Your task to perform on an android device: Open eBay Image 0: 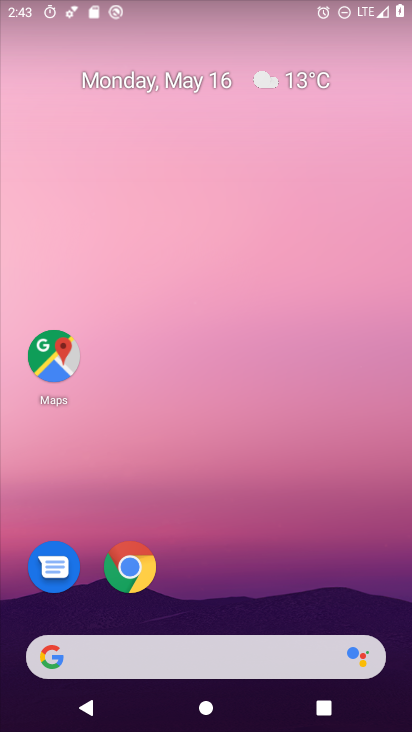
Step 0: click (123, 555)
Your task to perform on an android device: Open eBay Image 1: 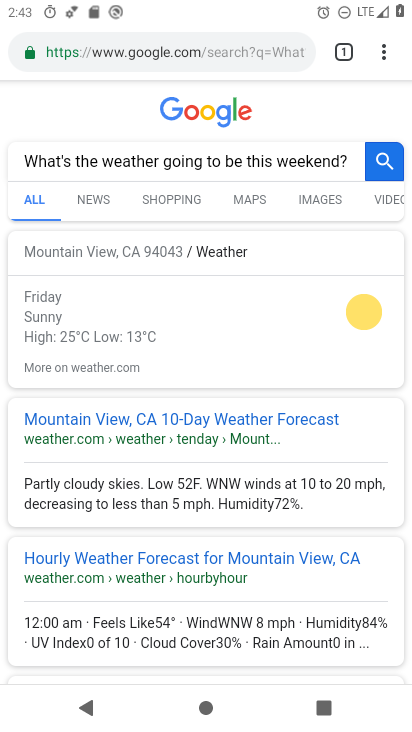
Step 1: click (104, 48)
Your task to perform on an android device: Open eBay Image 2: 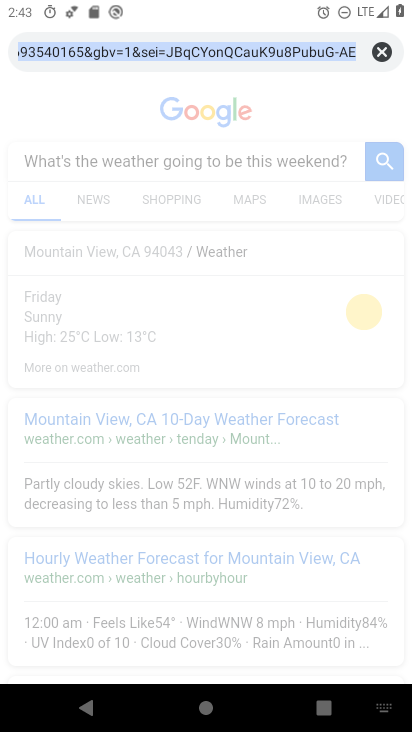
Step 2: click (377, 50)
Your task to perform on an android device: Open eBay Image 3: 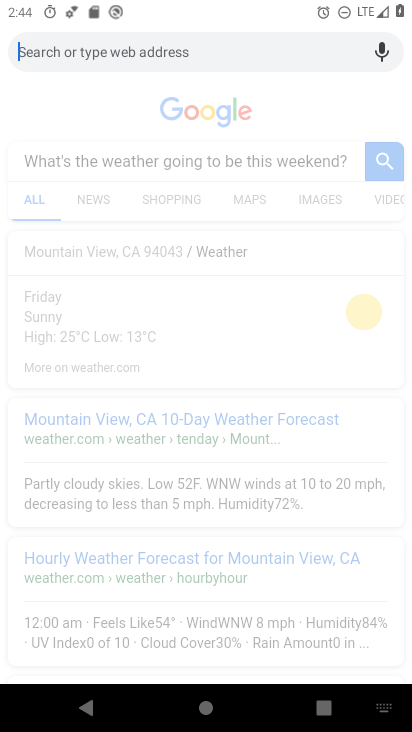
Step 3: click (186, 58)
Your task to perform on an android device: Open eBay Image 4: 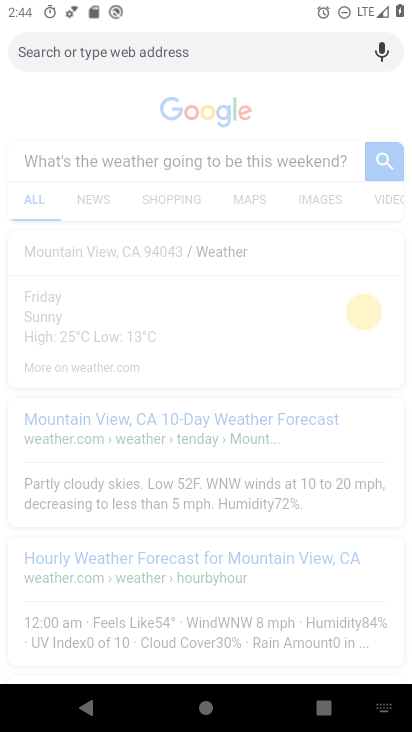
Step 4: click (301, 684)
Your task to perform on an android device: Open eBay Image 5: 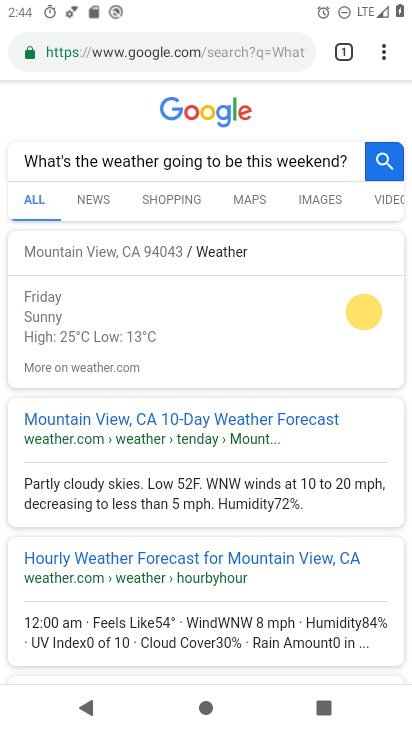
Step 5: type " eBay"
Your task to perform on an android device: Open eBay Image 6: 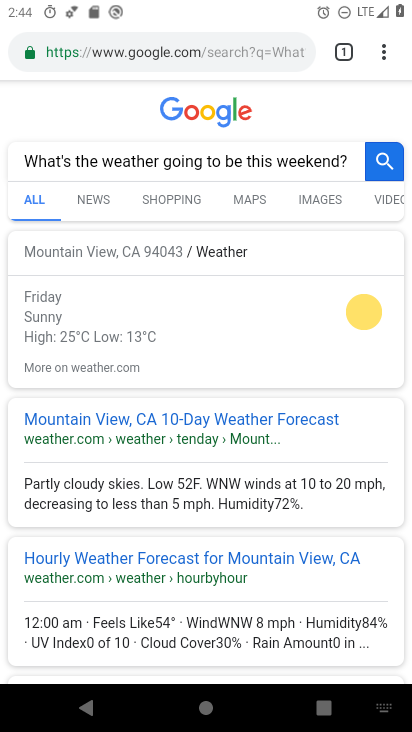
Step 6: click (148, 54)
Your task to perform on an android device: Open eBay Image 7: 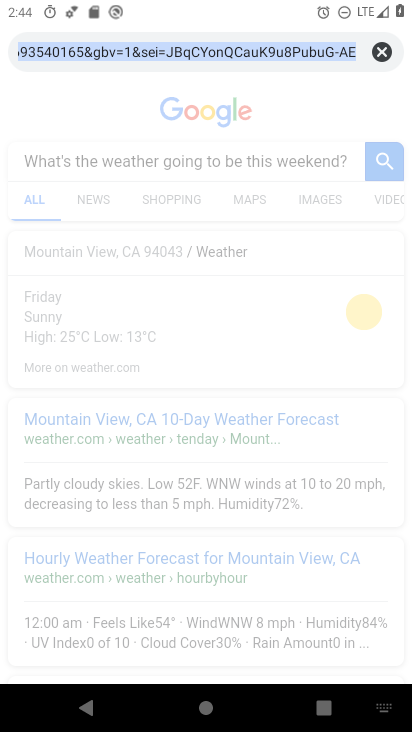
Step 7: click (376, 49)
Your task to perform on an android device: Open eBay Image 8: 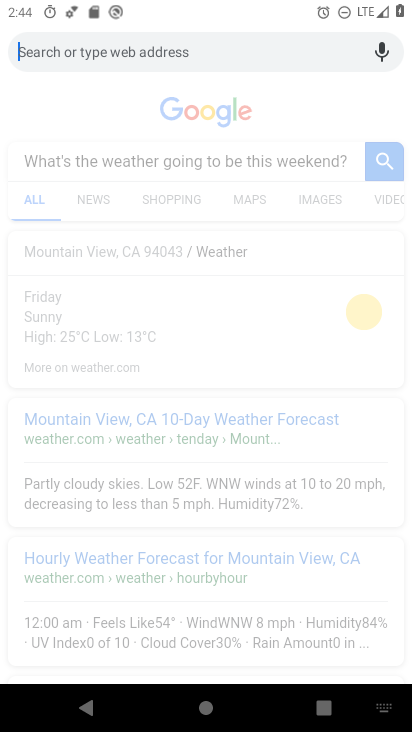
Step 8: type " eBay"
Your task to perform on an android device: Open eBay Image 9: 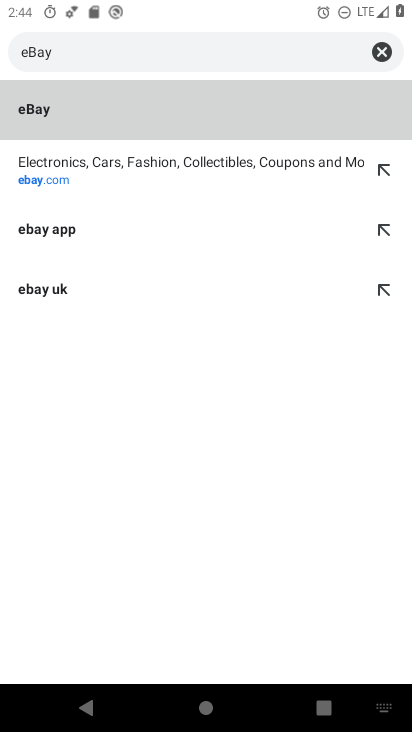
Step 9: click (38, 176)
Your task to perform on an android device: Open eBay Image 10: 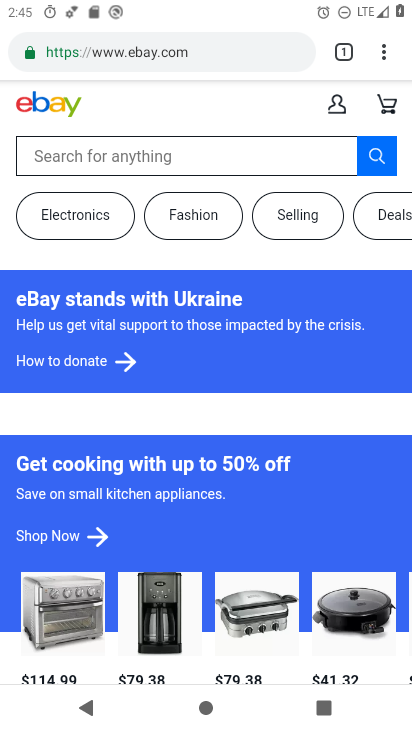
Step 10: task complete